Your task to perform on an android device: Open Youtube and go to the subscriptions tab Image 0: 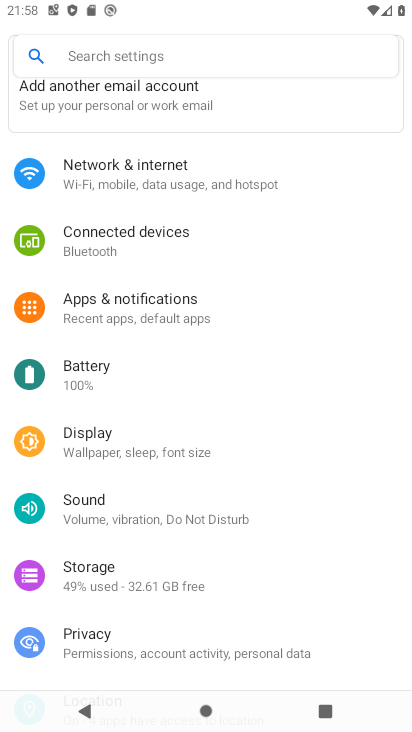
Step 0: press home button
Your task to perform on an android device: Open Youtube and go to the subscriptions tab Image 1: 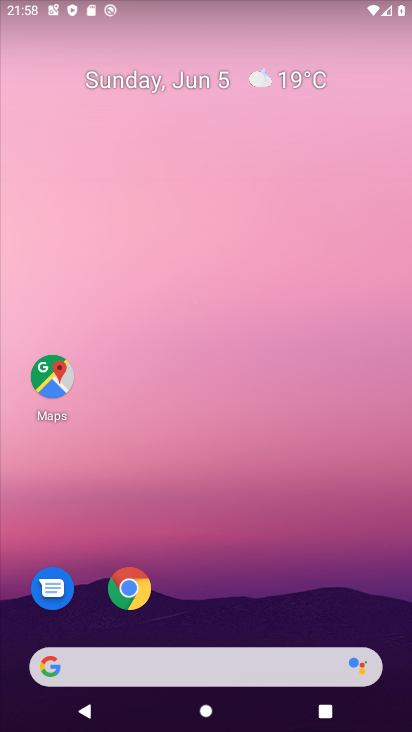
Step 1: drag from (364, 602) to (382, 213)
Your task to perform on an android device: Open Youtube and go to the subscriptions tab Image 2: 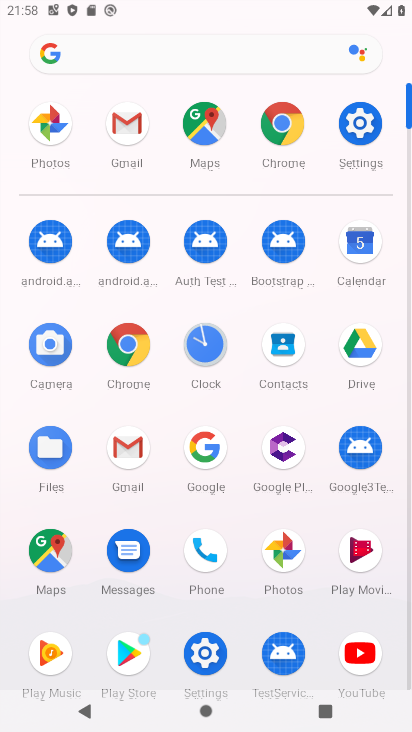
Step 2: click (363, 654)
Your task to perform on an android device: Open Youtube and go to the subscriptions tab Image 3: 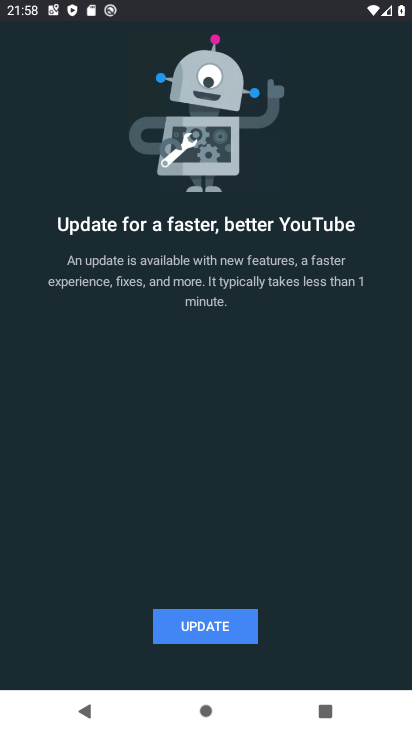
Step 3: click (239, 642)
Your task to perform on an android device: Open Youtube and go to the subscriptions tab Image 4: 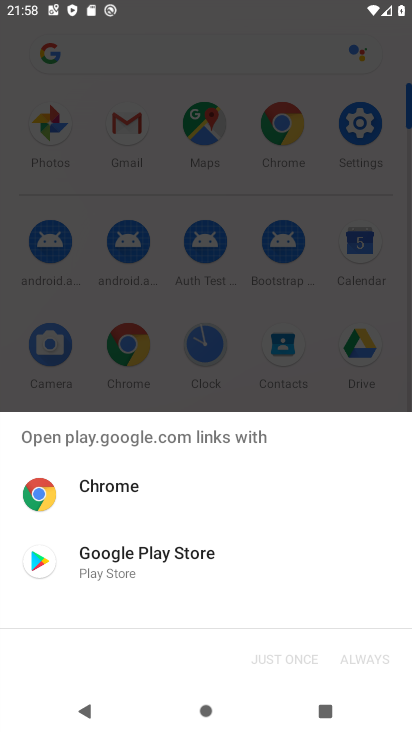
Step 4: click (119, 574)
Your task to perform on an android device: Open Youtube and go to the subscriptions tab Image 5: 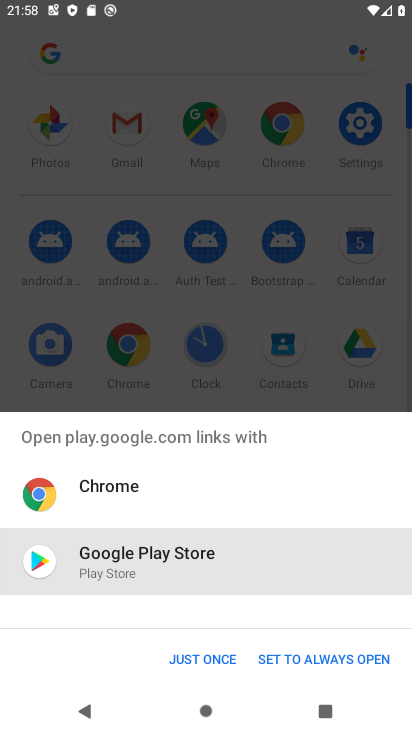
Step 5: click (209, 665)
Your task to perform on an android device: Open Youtube and go to the subscriptions tab Image 6: 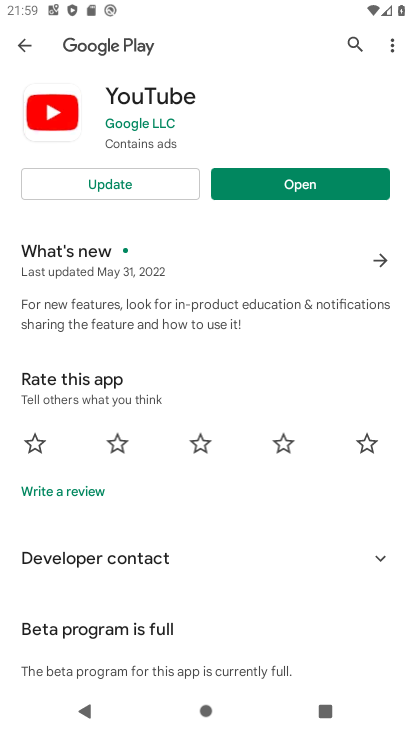
Step 6: click (139, 192)
Your task to perform on an android device: Open Youtube and go to the subscriptions tab Image 7: 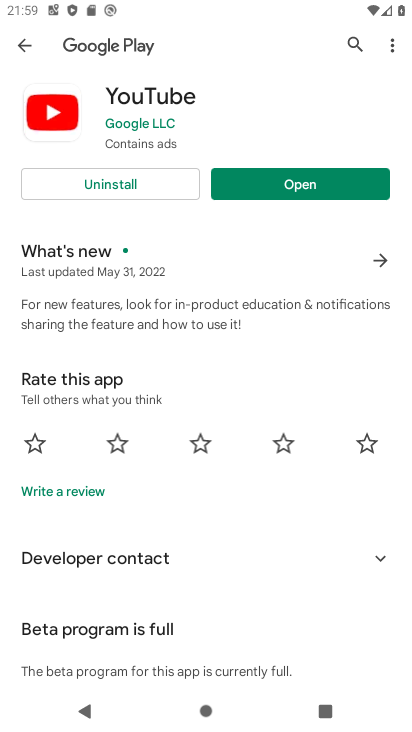
Step 7: click (306, 180)
Your task to perform on an android device: Open Youtube and go to the subscriptions tab Image 8: 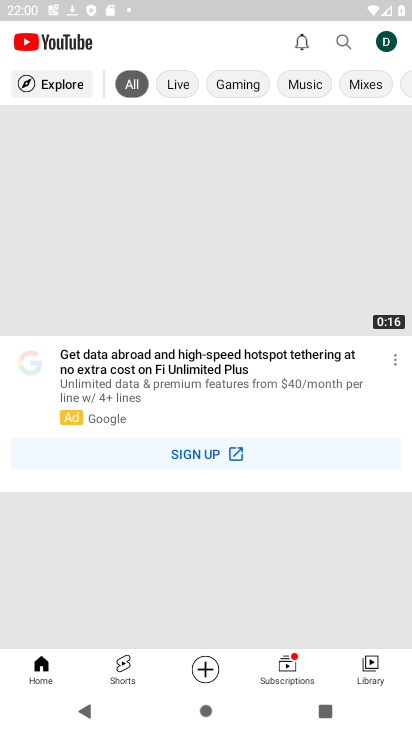
Step 8: click (293, 678)
Your task to perform on an android device: Open Youtube and go to the subscriptions tab Image 9: 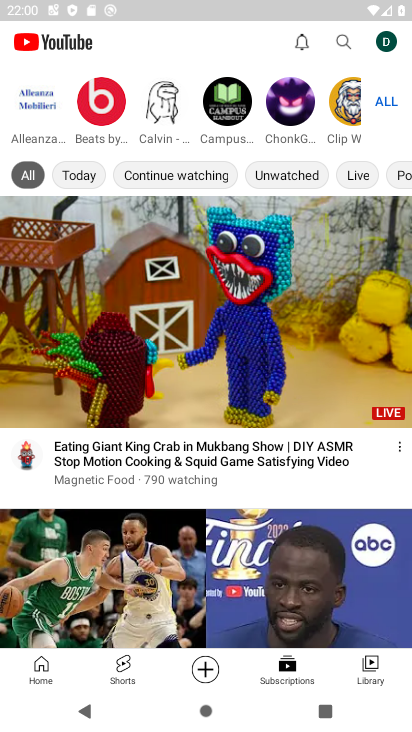
Step 9: task complete